Your task to perform on an android device: Open Google Chrome Image 0: 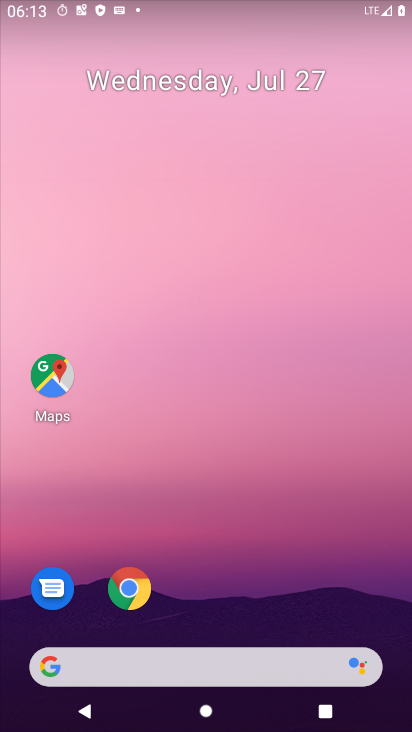
Step 0: drag from (306, 675) to (305, 19)
Your task to perform on an android device: Open Google Chrome Image 1: 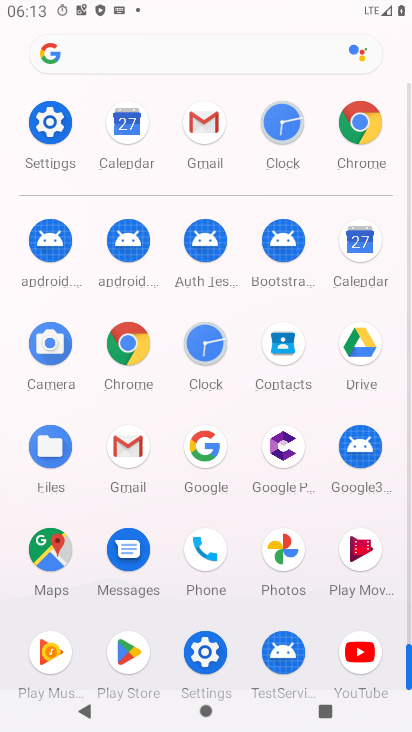
Step 1: click (205, 447)
Your task to perform on an android device: Open Google Chrome Image 2: 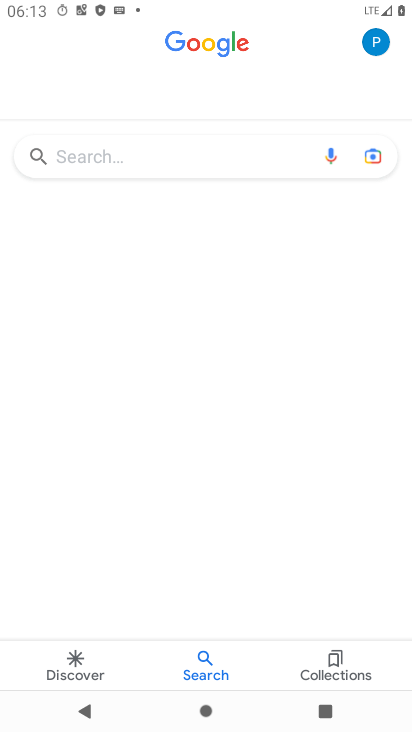
Step 2: task complete